Your task to perform on an android device: delete a single message in the gmail app Image 0: 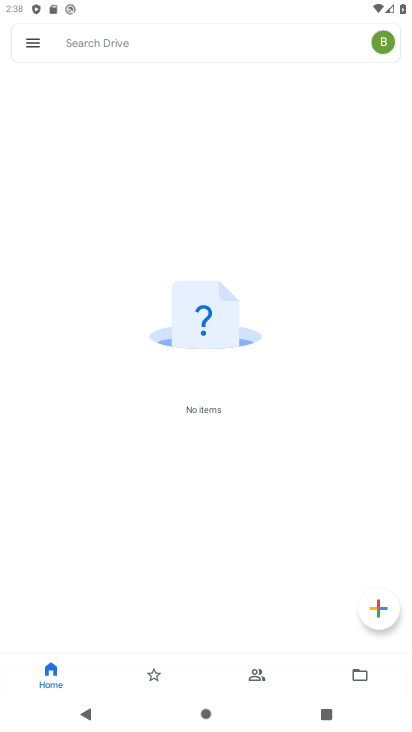
Step 0: press home button
Your task to perform on an android device: delete a single message in the gmail app Image 1: 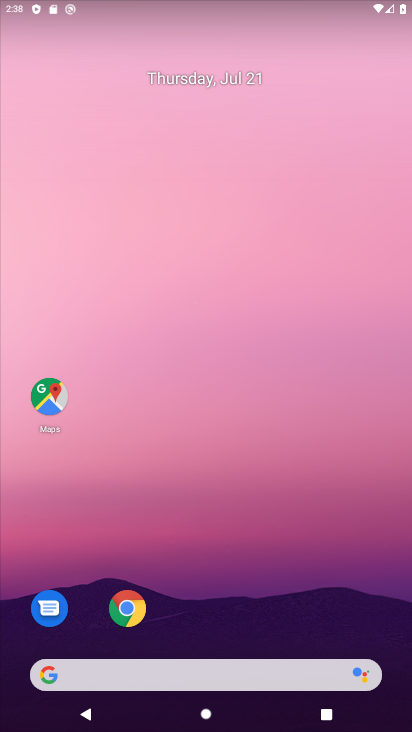
Step 1: drag from (151, 669) to (144, 136)
Your task to perform on an android device: delete a single message in the gmail app Image 2: 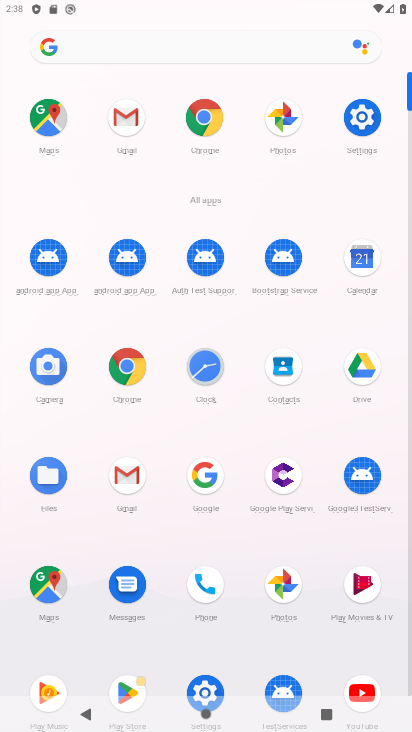
Step 2: click (136, 474)
Your task to perform on an android device: delete a single message in the gmail app Image 3: 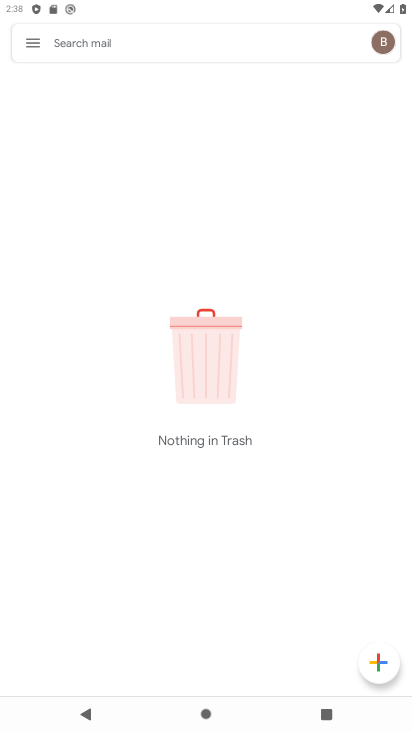
Step 3: click (30, 36)
Your task to perform on an android device: delete a single message in the gmail app Image 4: 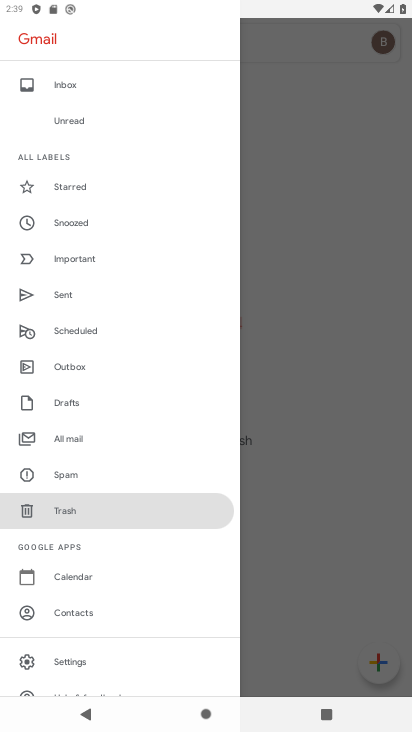
Step 4: click (84, 432)
Your task to perform on an android device: delete a single message in the gmail app Image 5: 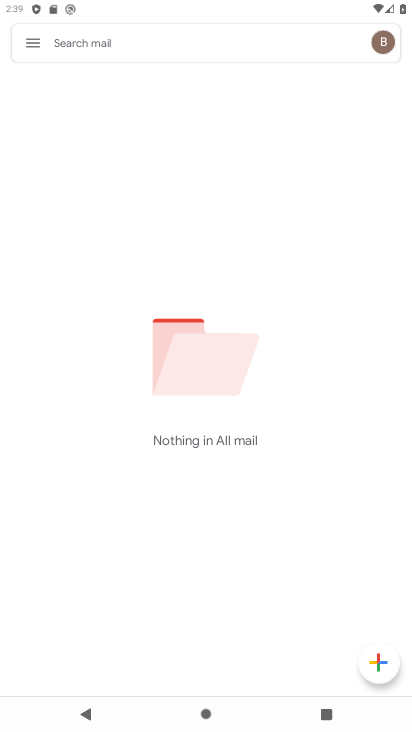
Step 5: task complete